Your task to perform on an android device: Go to display settings Image 0: 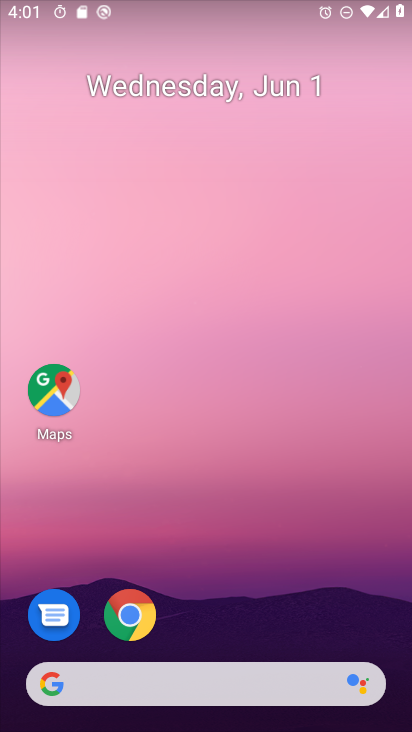
Step 0: drag from (242, 687) to (248, 13)
Your task to perform on an android device: Go to display settings Image 1: 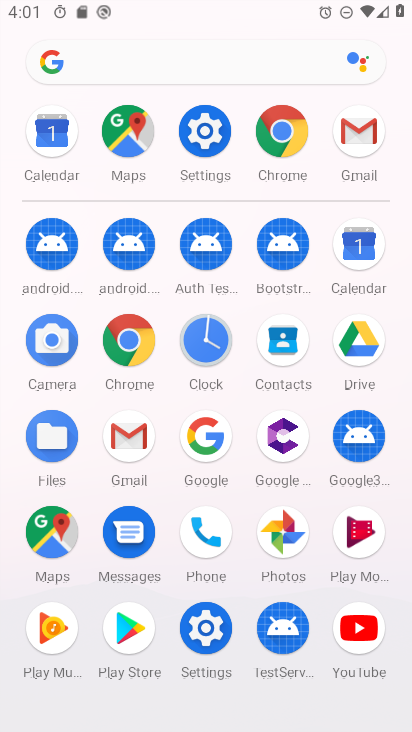
Step 1: click (216, 146)
Your task to perform on an android device: Go to display settings Image 2: 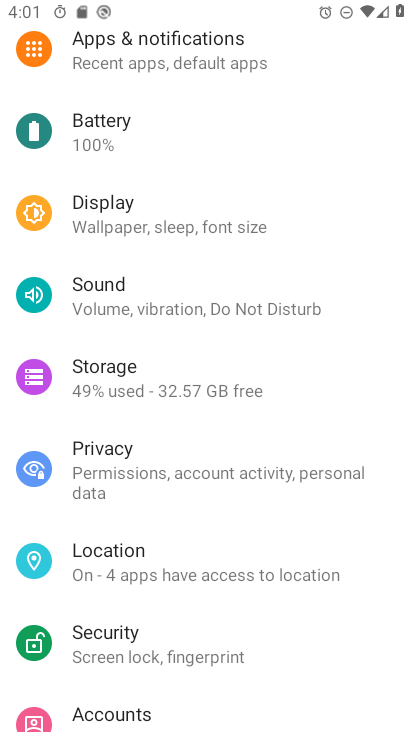
Step 2: click (138, 214)
Your task to perform on an android device: Go to display settings Image 3: 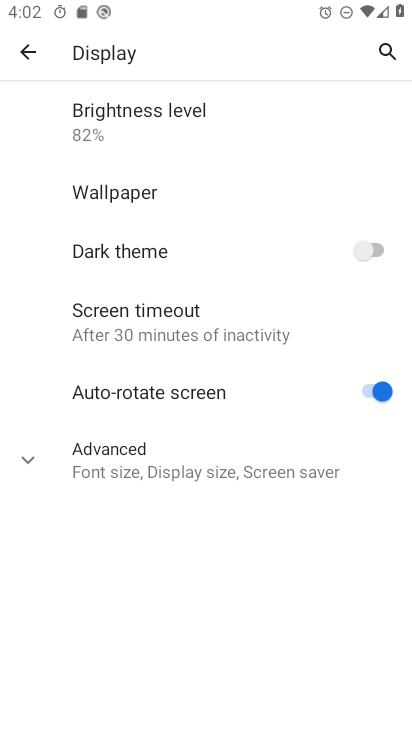
Step 3: task complete